Your task to perform on an android device: open chrome and create a bookmark for the current page Image 0: 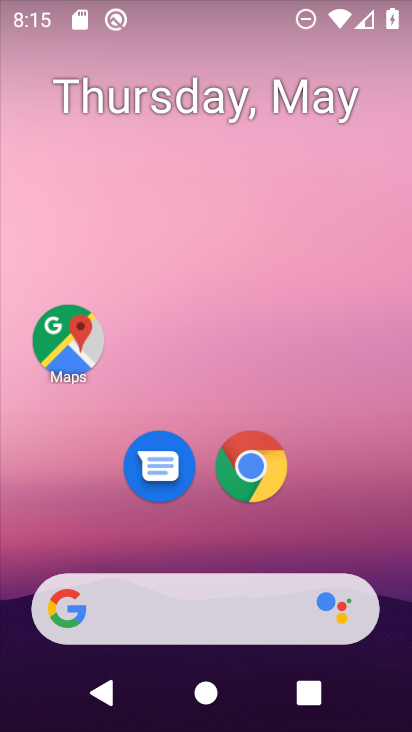
Step 0: click (251, 476)
Your task to perform on an android device: open chrome and create a bookmark for the current page Image 1: 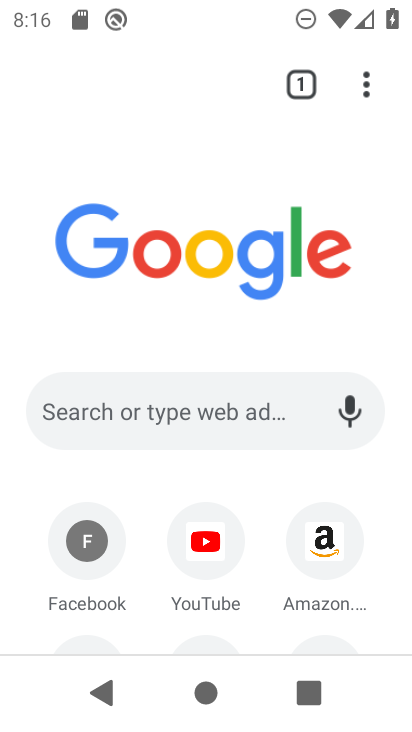
Step 1: click (369, 81)
Your task to perform on an android device: open chrome and create a bookmark for the current page Image 2: 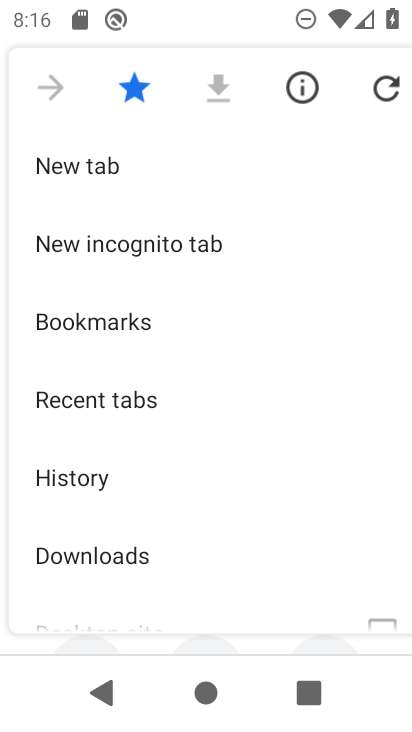
Step 2: click (115, 683)
Your task to perform on an android device: open chrome and create a bookmark for the current page Image 3: 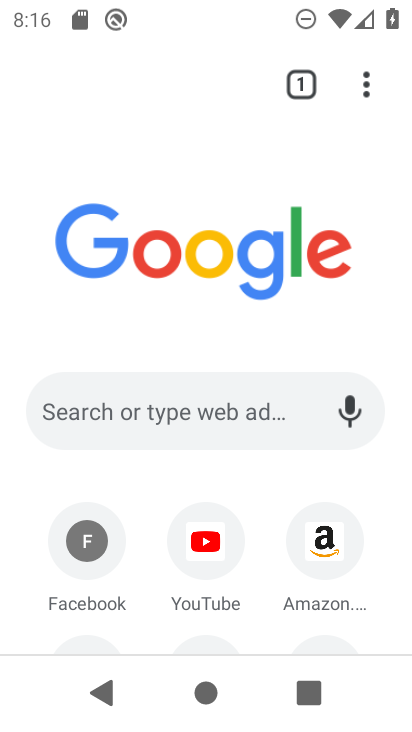
Step 3: task complete